Your task to perform on an android device: Open Google Image 0: 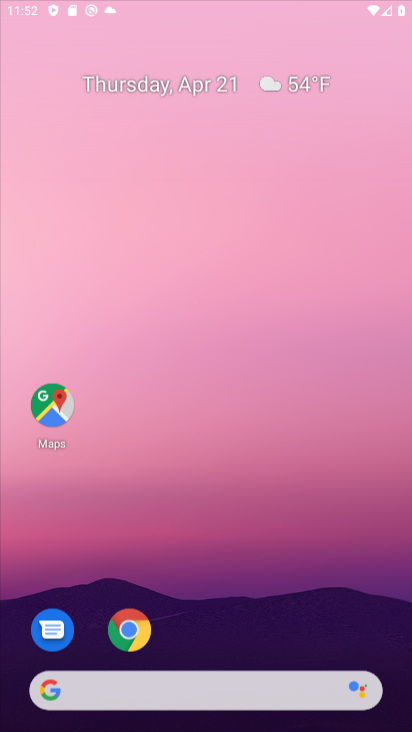
Step 0: click (187, 367)
Your task to perform on an android device: Open Google Image 1: 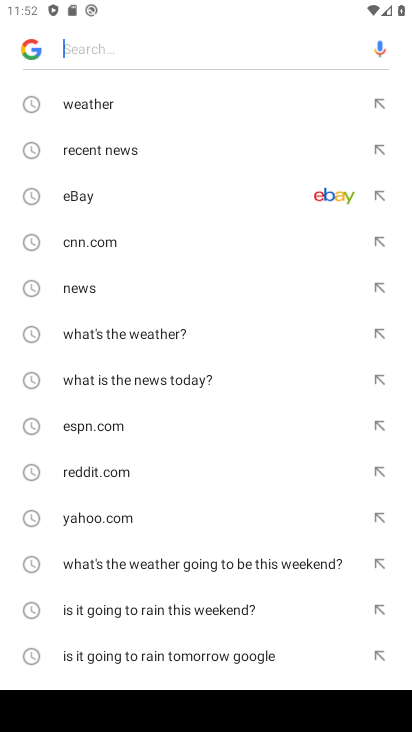
Step 1: task complete